Your task to perform on an android device: empty trash in the gmail app Image 0: 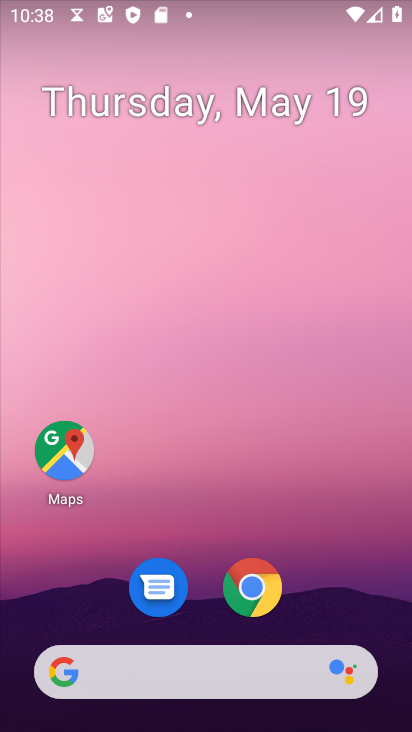
Step 0: drag from (233, 689) to (203, 5)
Your task to perform on an android device: empty trash in the gmail app Image 1: 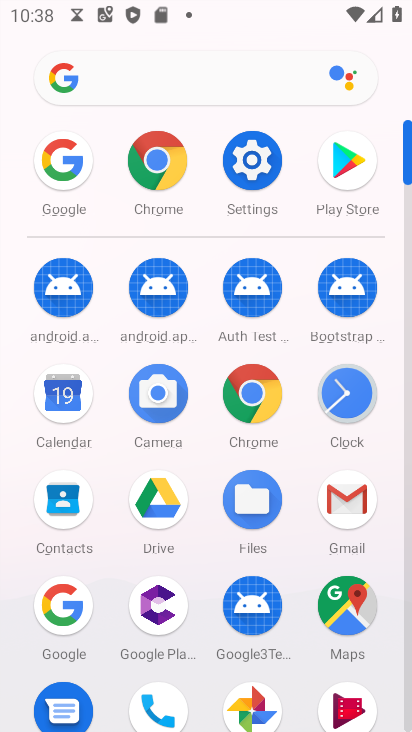
Step 1: click (348, 511)
Your task to perform on an android device: empty trash in the gmail app Image 2: 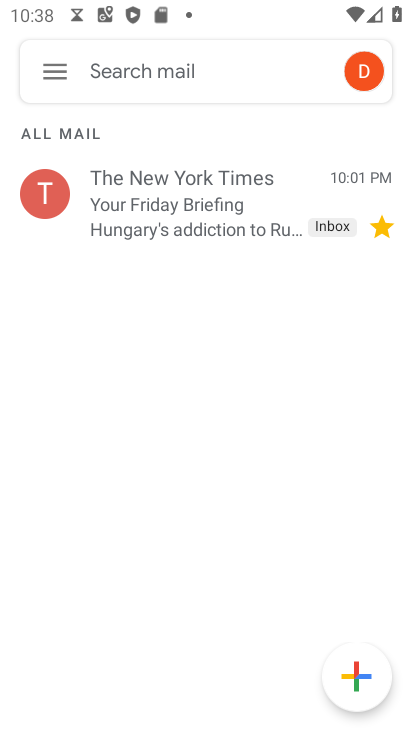
Step 2: click (46, 68)
Your task to perform on an android device: empty trash in the gmail app Image 3: 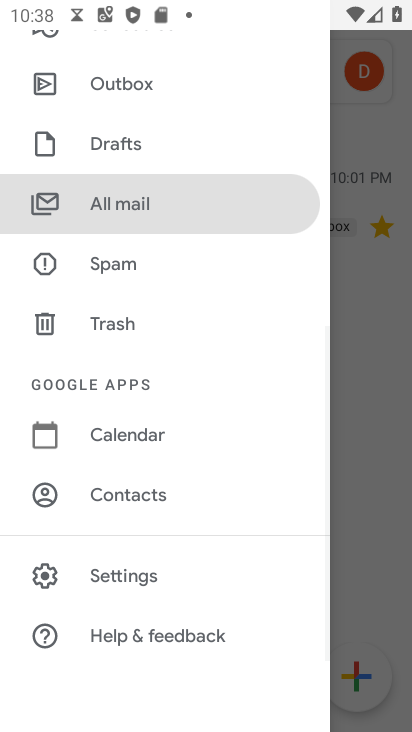
Step 3: click (110, 331)
Your task to perform on an android device: empty trash in the gmail app Image 4: 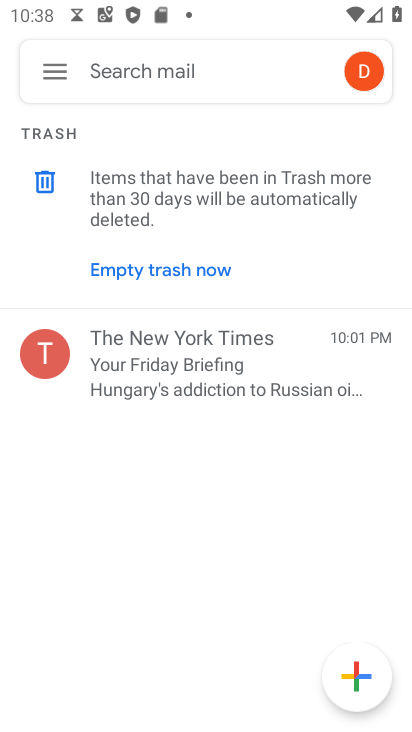
Step 4: click (134, 264)
Your task to perform on an android device: empty trash in the gmail app Image 5: 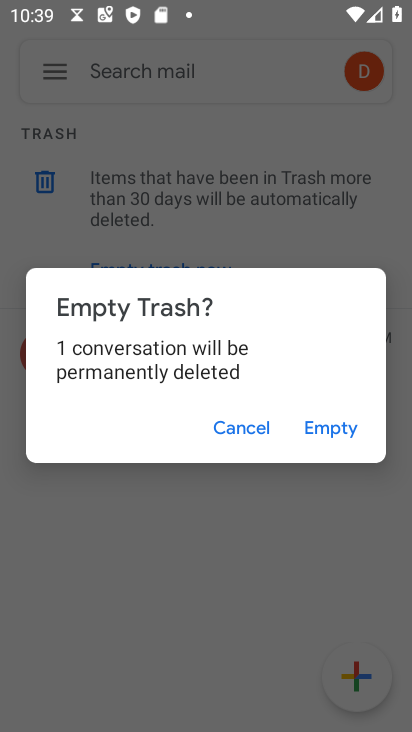
Step 5: click (314, 431)
Your task to perform on an android device: empty trash in the gmail app Image 6: 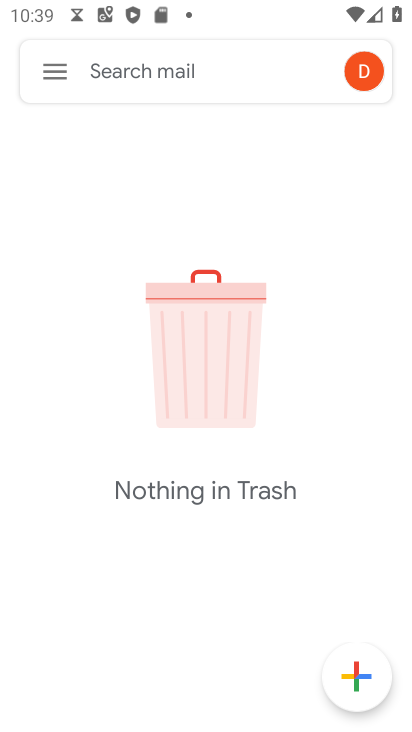
Step 6: task complete